Your task to perform on an android device: Toggle the flashlight Image 0: 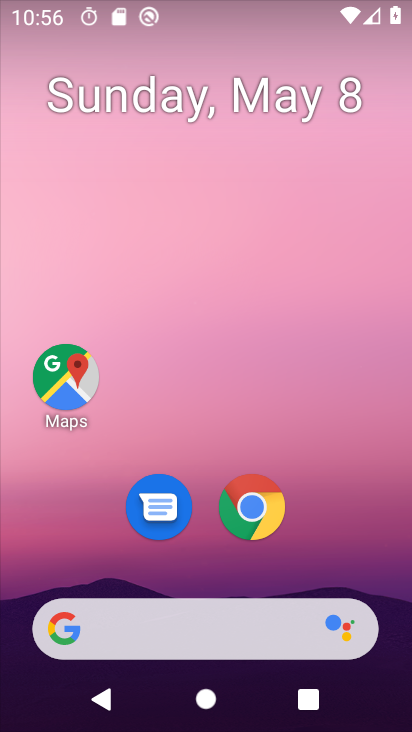
Step 0: click (219, 208)
Your task to perform on an android device: Toggle the flashlight Image 1: 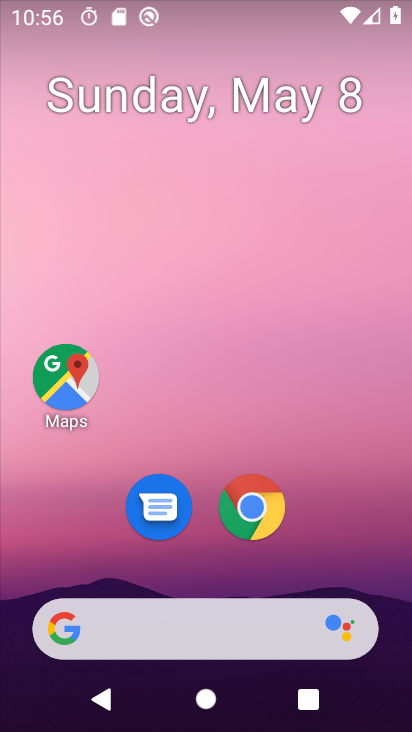
Step 1: drag from (211, 723) to (214, 217)
Your task to perform on an android device: Toggle the flashlight Image 2: 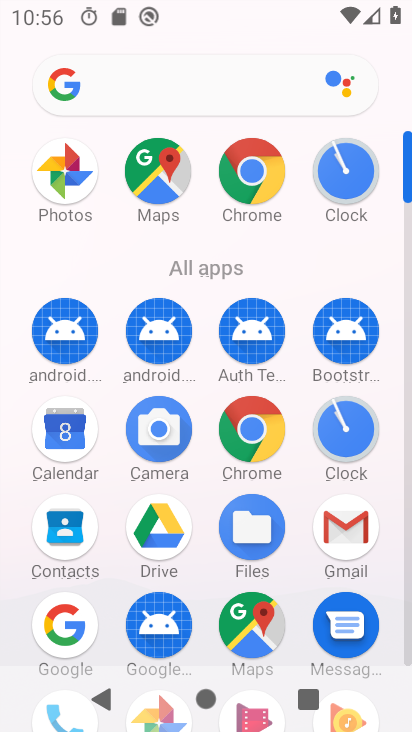
Step 2: drag from (200, 639) to (197, 217)
Your task to perform on an android device: Toggle the flashlight Image 3: 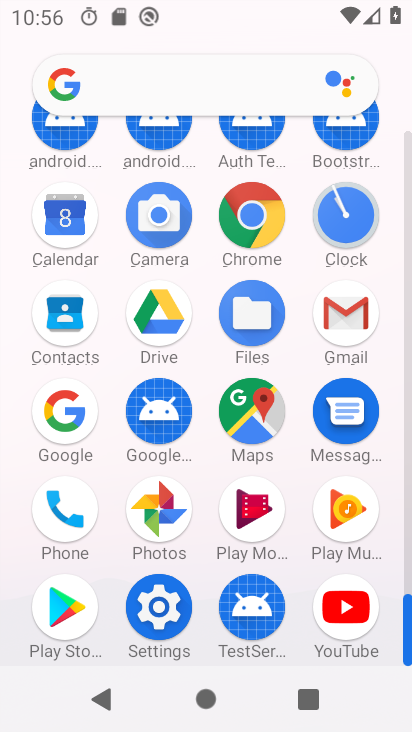
Step 3: click (157, 609)
Your task to perform on an android device: Toggle the flashlight Image 4: 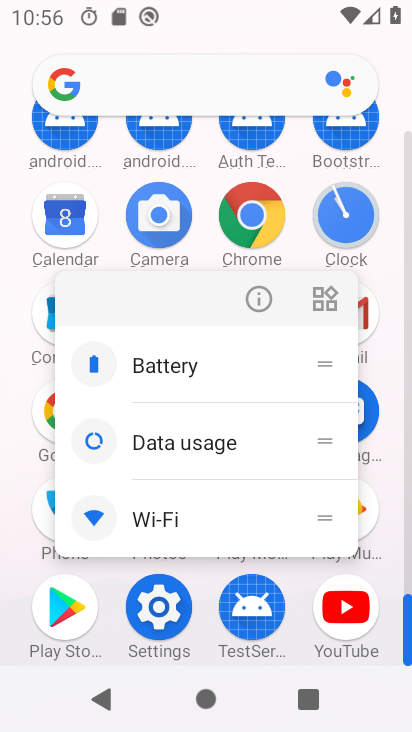
Step 4: click (158, 606)
Your task to perform on an android device: Toggle the flashlight Image 5: 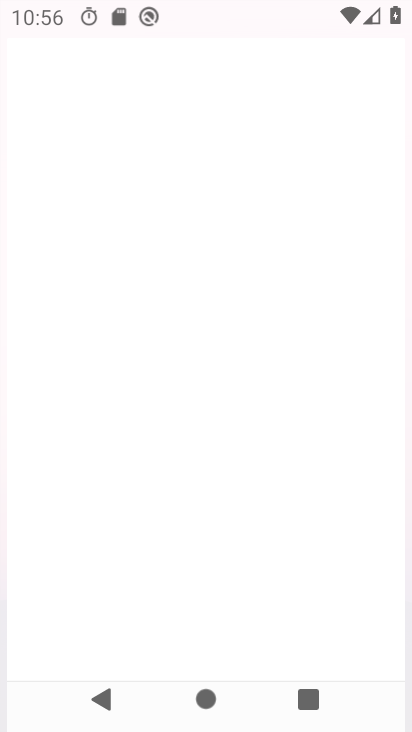
Step 5: click (158, 606)
Your task to perform on an android device: Toggle the flashlight Image 6: 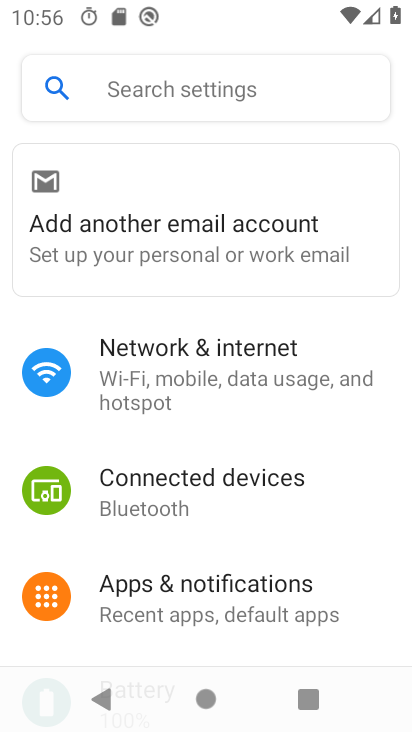
Step 6: task complete